Your task to perform on an android device: turn off translation in the chrome app Image 0: 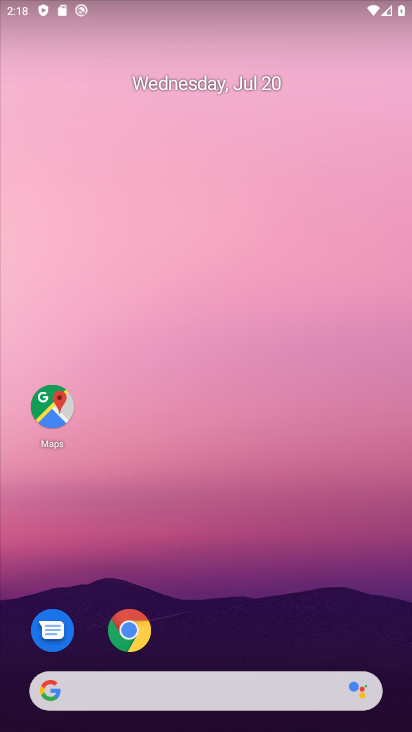
Step 0: click (124, 620)
Your task to perform on an android device: turn off translation in the chrome app Image 1: 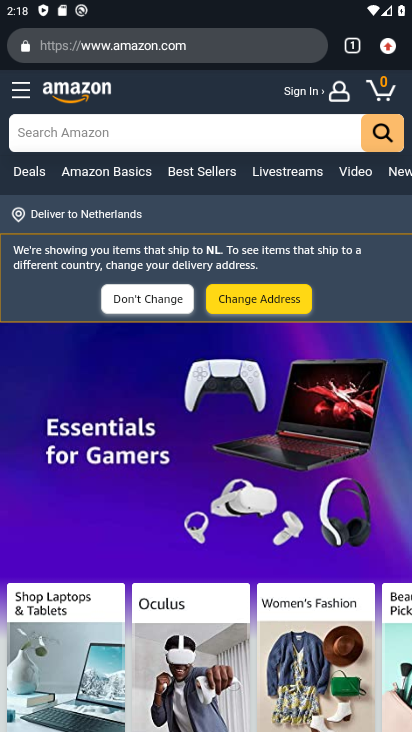
Step 1: click (386, 58)
Your task to perform on an android device: turn off translation in the chrome app Image 2: 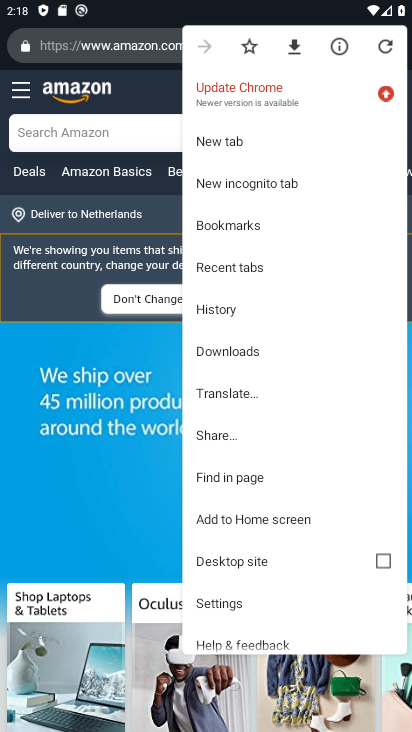
Step 2: click (265, 607)
Your task to perform on an android device: turn off translation in the chrome app Image 3: 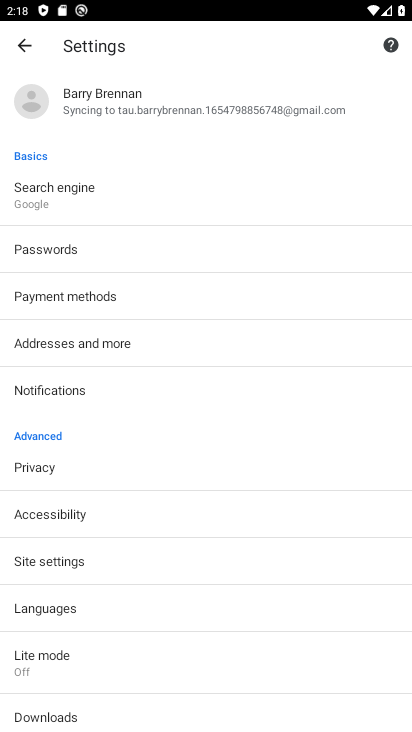
Step 3: click (112, 602)
Your task to perform on an android device: turn off translation in the chrome app Image 4: 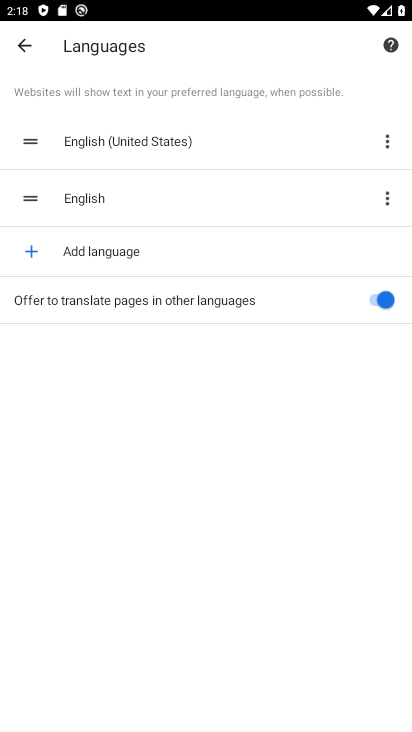
Step 4: click (374, 312)
Your task to perform on an android device: turn off translation in the chrome app Image 5: 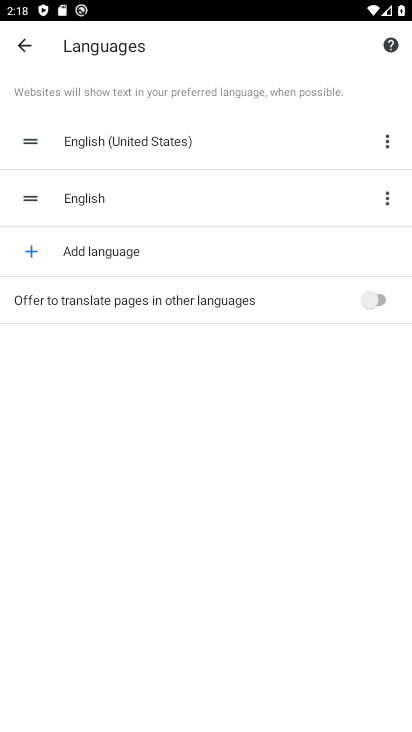
Step 5: task complete